Your task to perform on an android device: open app "DuckDuckGo Privacy Browser" (install if not already installed), go to login, and select forgot password Image 0: 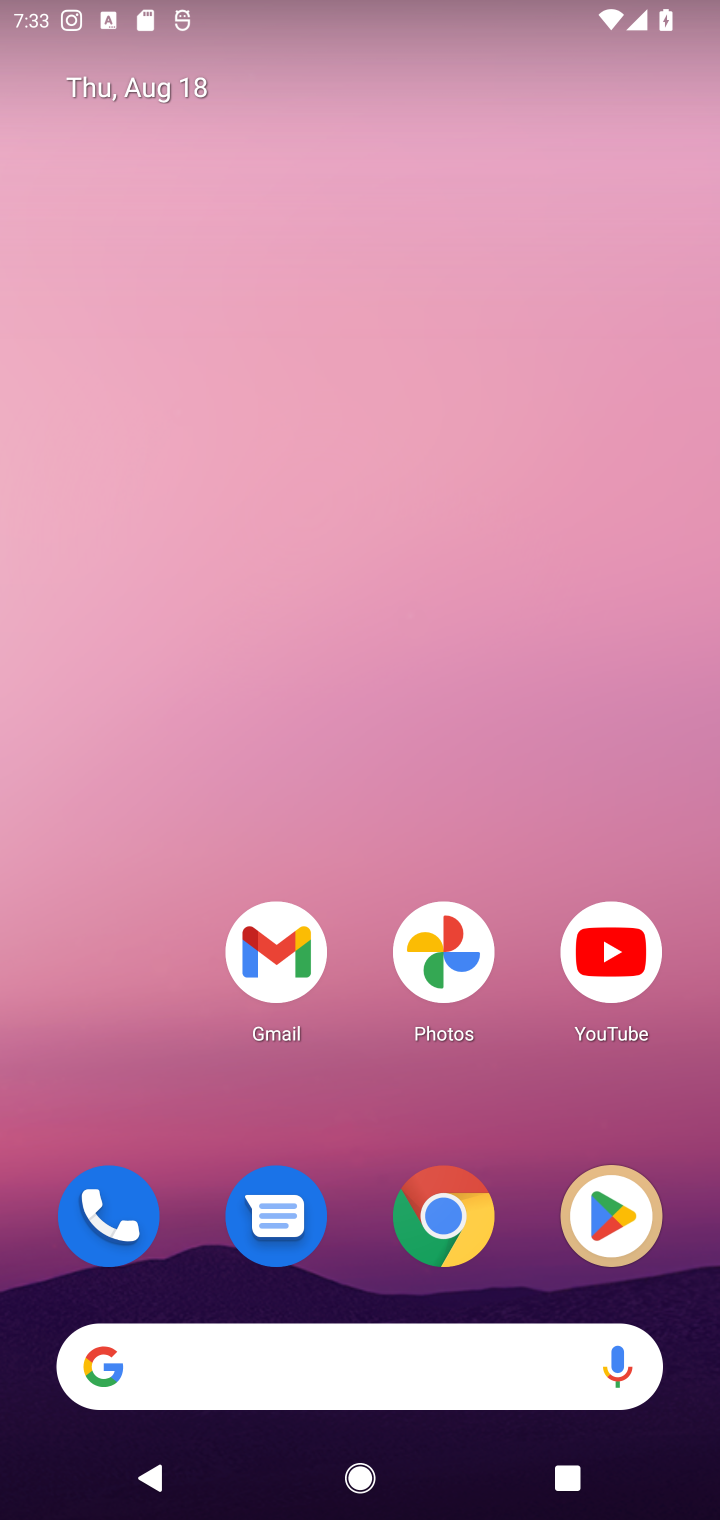
Step 0: click (597, 1196)
Your task to perform on an android device: open app "DuckDuckGo Privacy Browser" (install if not already installed), go to login, and select forgot password Image 1: 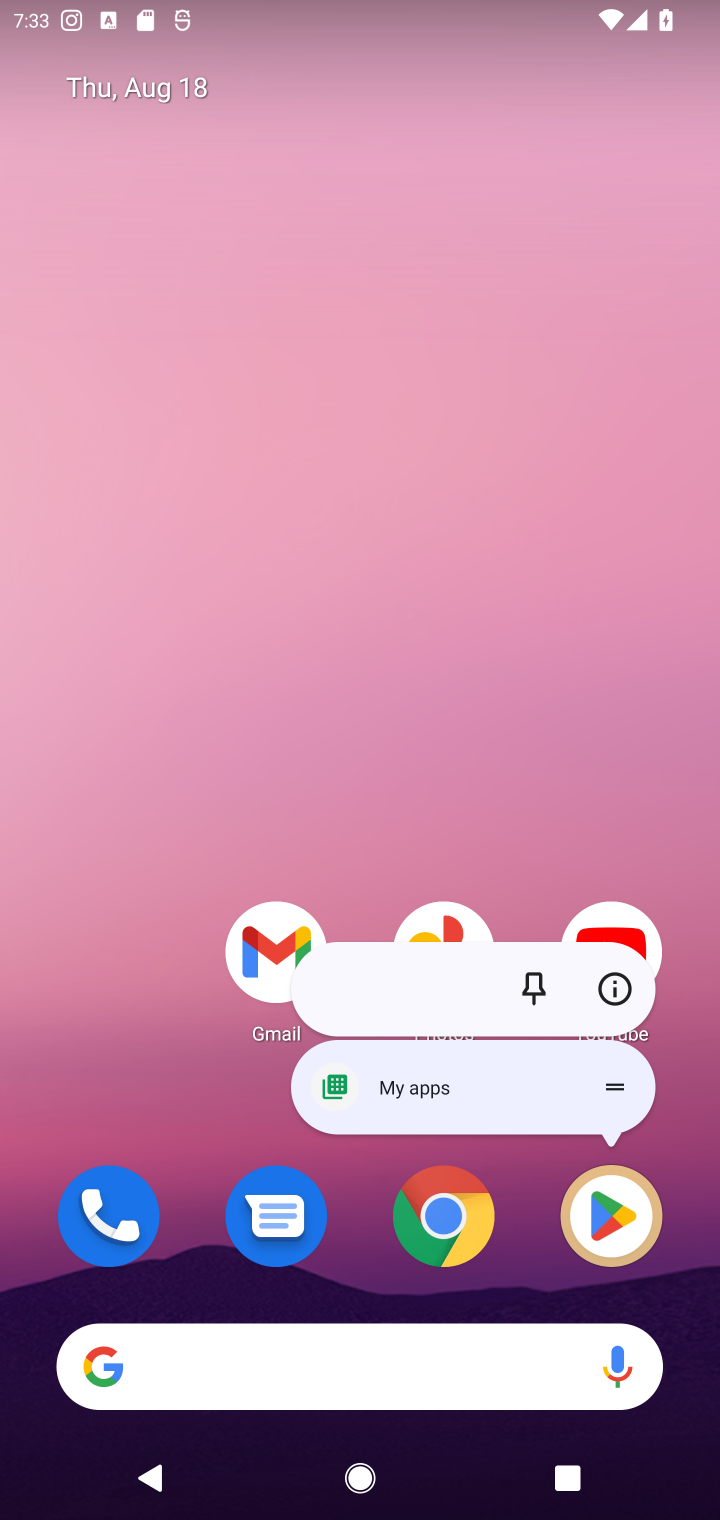
Step 1: click (600, 1194)
Your task to perform on an android device: open app "DuckDuckGo Privacy Browser" (install if not already installed), go to login, and select forgot password Image 2: 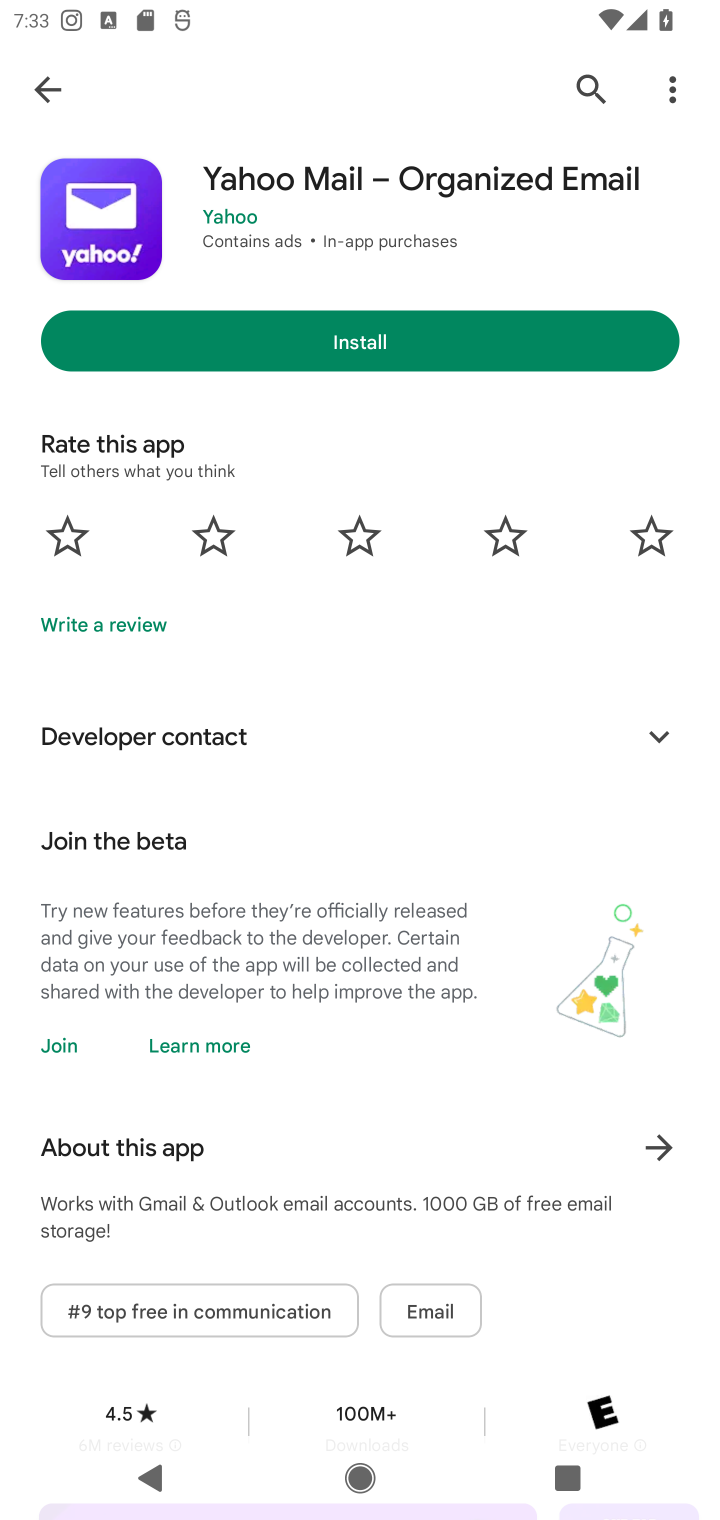
Step 2: click (574, 71)
Your task to perform on an android device: open app "DuckDuckGo Privacy Browser" (install if not already installed), go to login, and select forgot password Image 3: 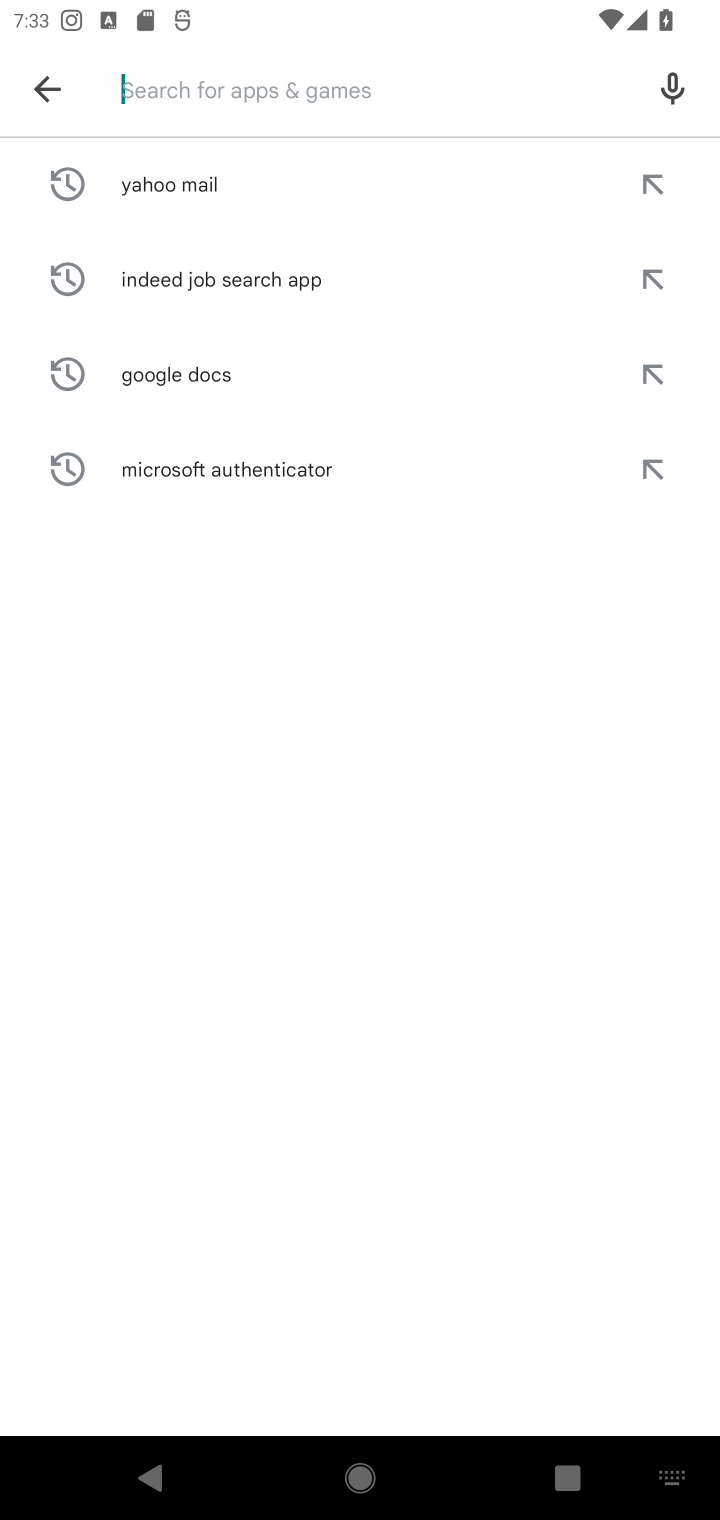
Step 3: type "DuckDuckGo Privacy Browser"
Your task to perform on an android device: open app "DuckDuckGo Privacy Browser" (install if not already installed), go to login, and select forgot password Image 4: 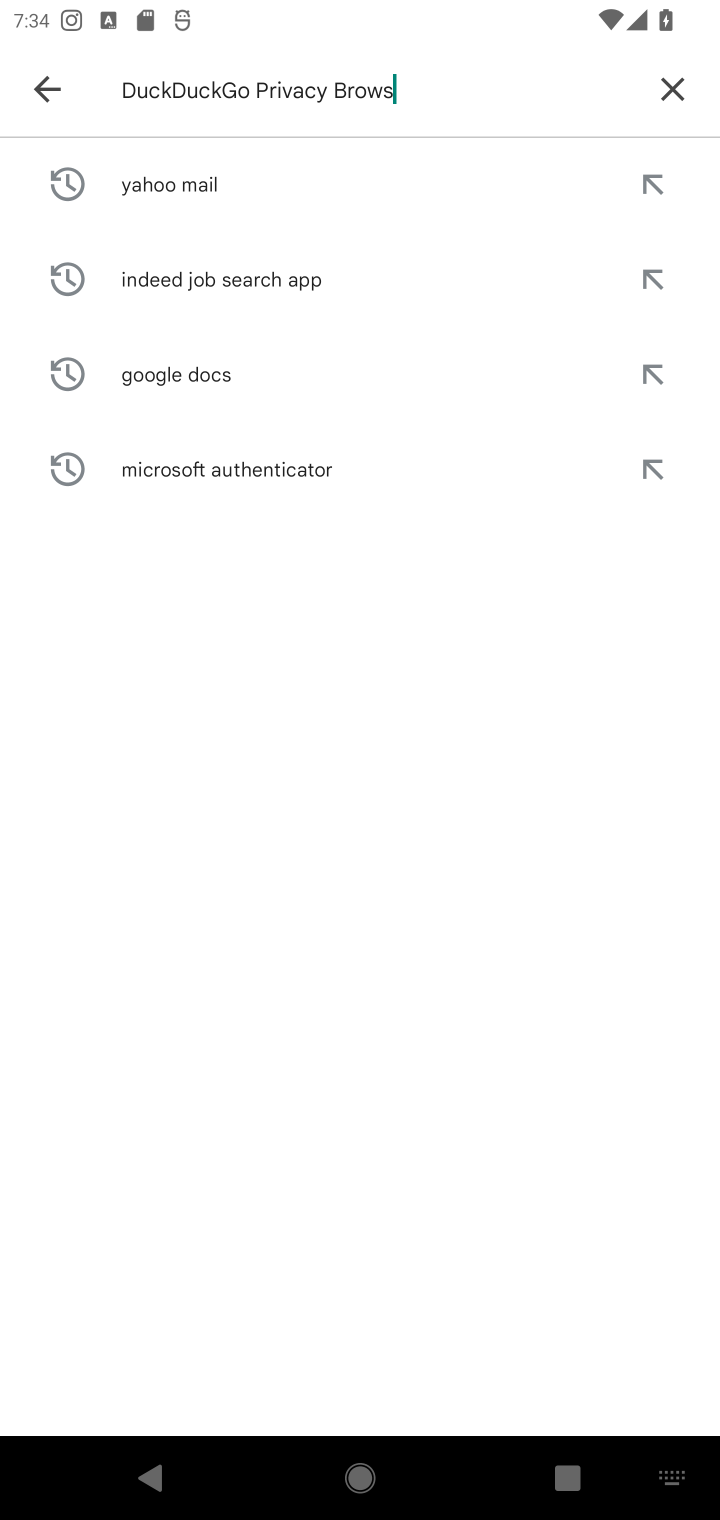
Step 4: type ""
Your task to perform on an android device: open app "DuckDuckGo Privacy Browser" (install if not already installed), go to login, and select forgot password Image 5: 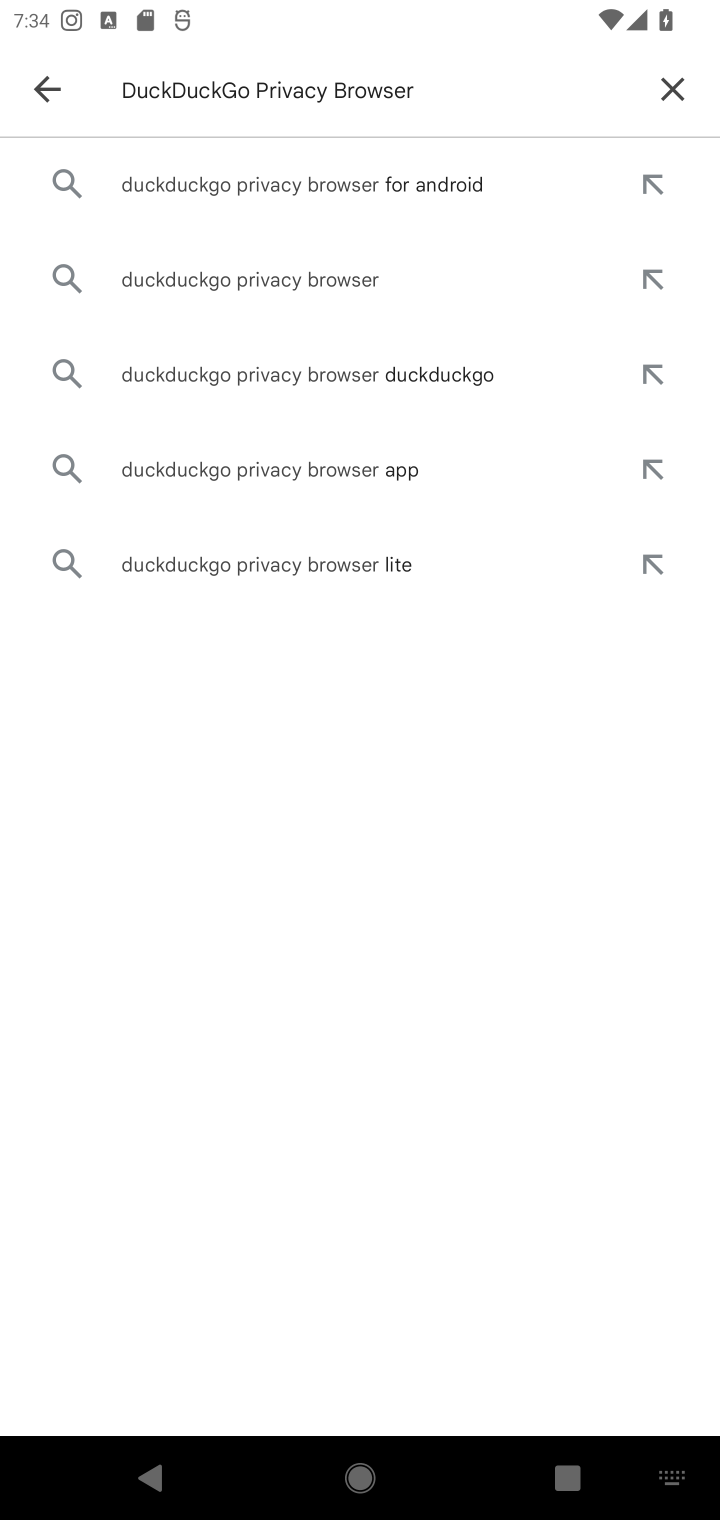
Step 5: click (233, 192)
Your task to perform on an android device: open app "DuckDuckGo Privacy Browser" (install if not already installed), go to login, and select forgot password Image 6: 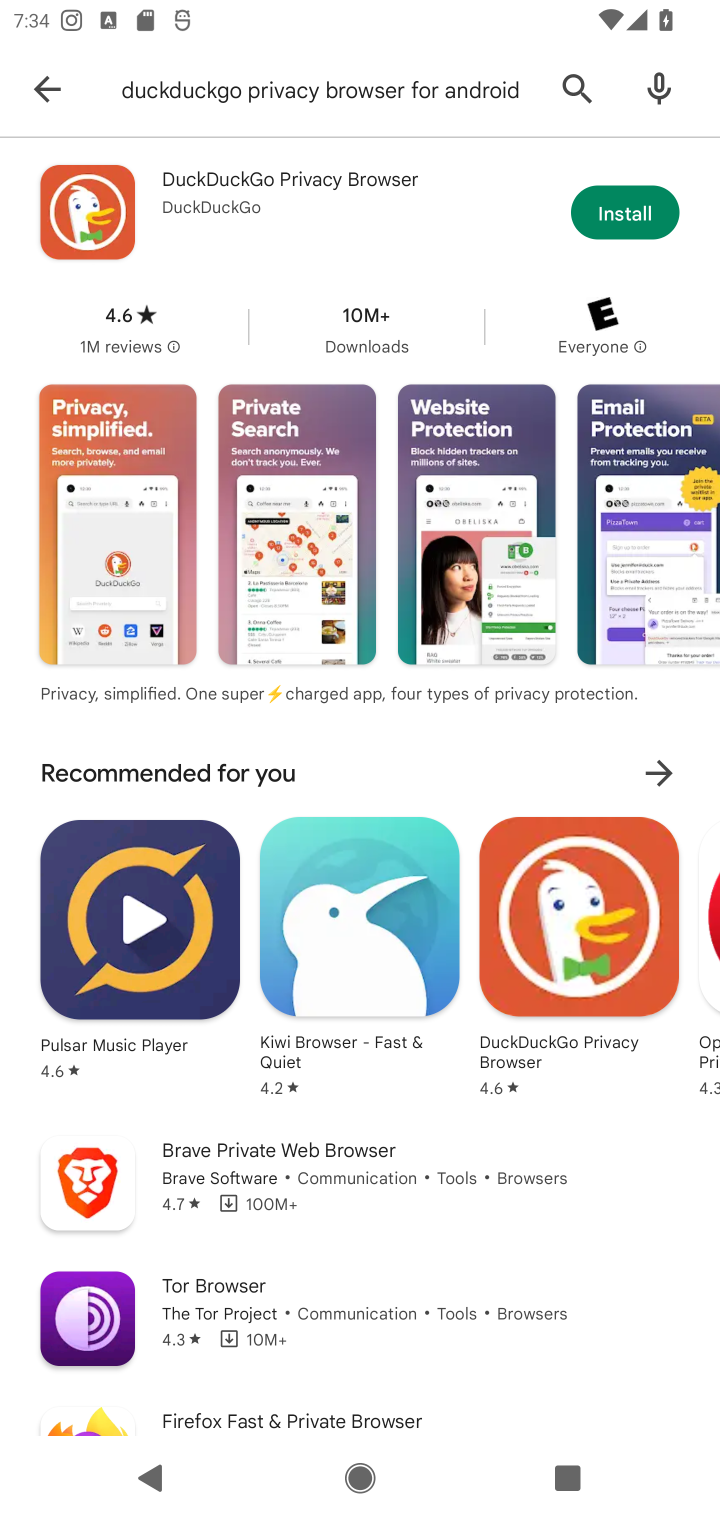
Step 6: click (612, 207)
Your task to perform on an android device: open app "DuckDuckGo Privacy Browser" (install if not already installed), go to login, and select forgot password Image 7: 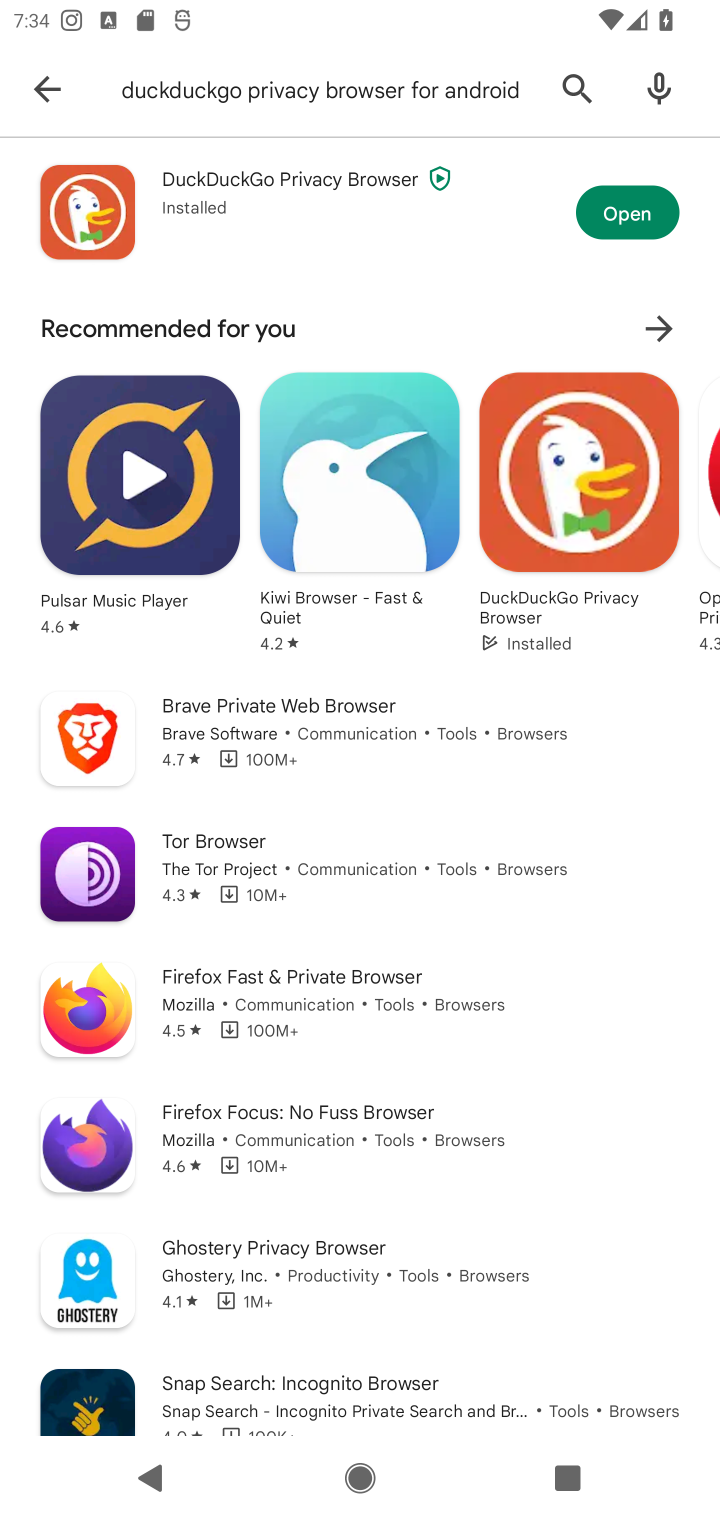
Step 7: click (661, 195)
Your task to perform on an android device: open app "DuckDuckGo Privacy Browser" (install if not already installed), go to login, and select forgot password Image 8: 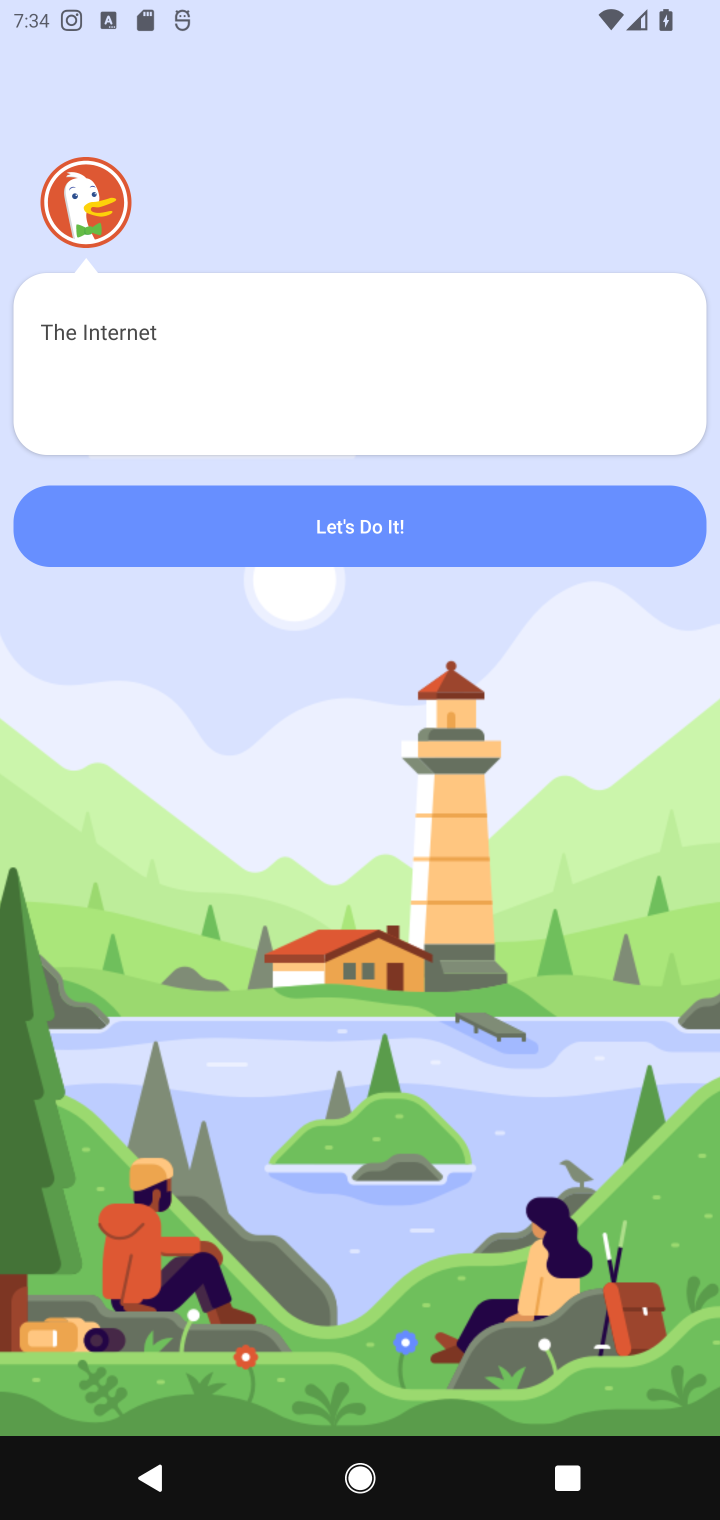
Step 8: task complete